Your task to perform on an android device: Open calendar and show me the second week of next month Image 0: 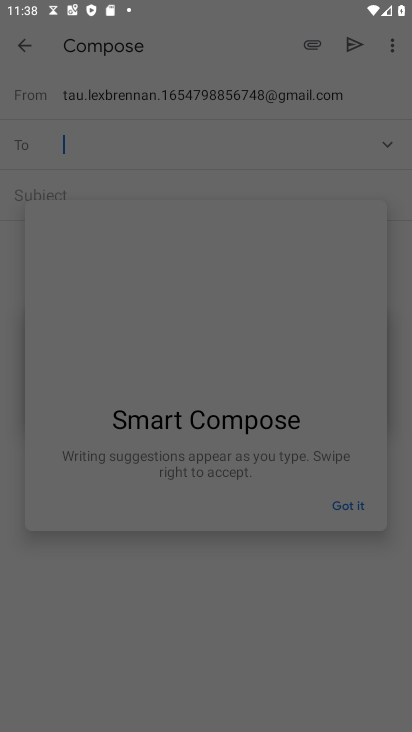
Step 0: press home button
Your task to perform on an android device: Open calendar and show me the second week of next month Image 1: 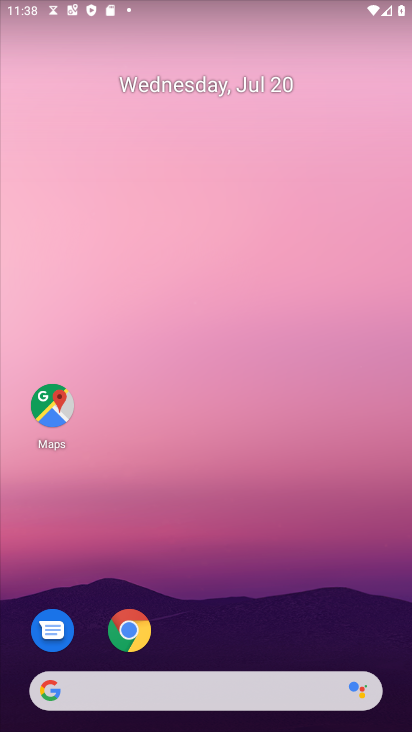
Step 1: drag from (88, 501) to (171, 205)
Your task to perform on an android device: Open calendar and show me the second week of next month Image 2: 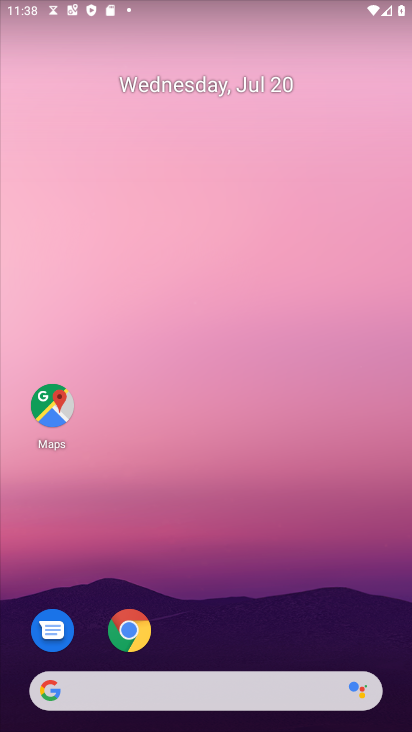
Step 2: drag from (148, 355) to (253, 61)
Your task to perform on an android device: Open calendar and show me the second week of next month Image 3: 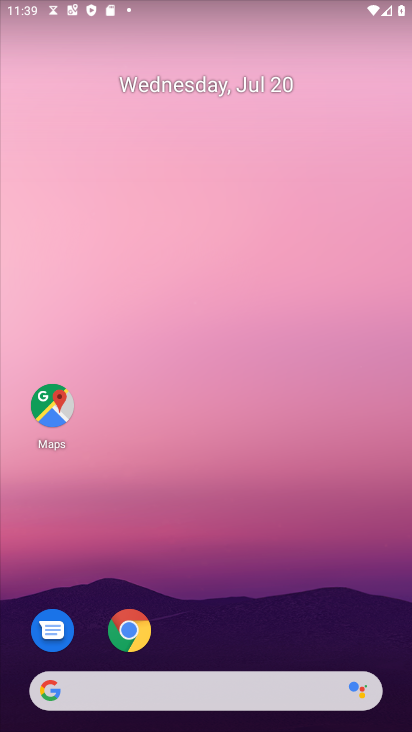
Step 3: drag from (5, 713) to (265, 74)
Your task to perform on an android device: Open calendar and show me the second week of next month Image 4: 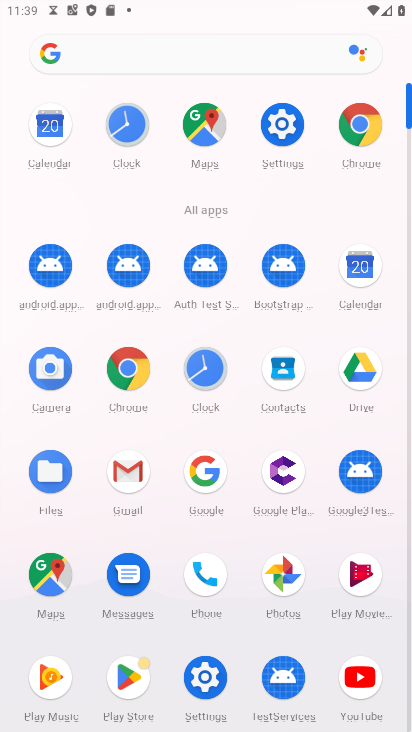
Step 4: click (363, 270)
Your task to perform on an android device: Open calendar and show me the second week of next month Image 5: 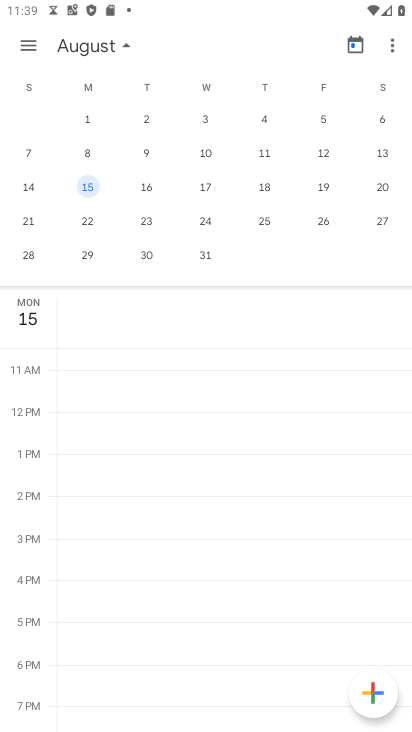
Step 5: click (85, 144)
Your task to perform on an android device: Open calendar and show me the second week of next month Image 6: 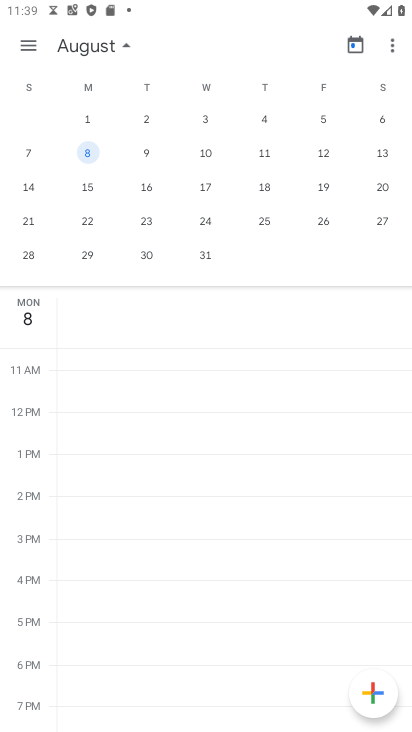
Step 6: task complete